Your task to perform on an android device: change the clock display to show seconds Image 0: 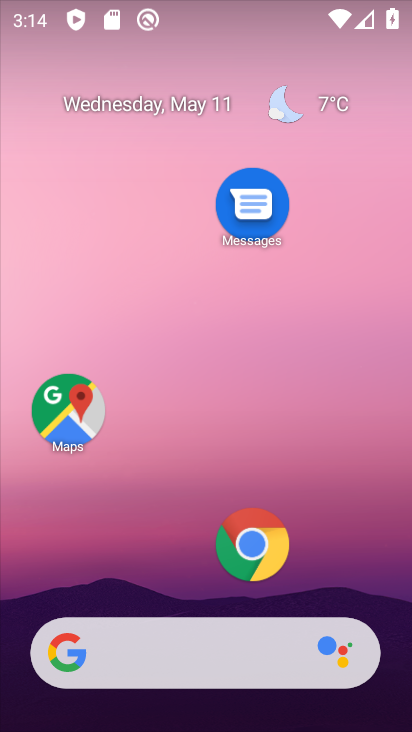
Step 0: drag from (171, 545) to (291, 46)
Your task to perform on an android device: change the clock display to show seconds Image 1: 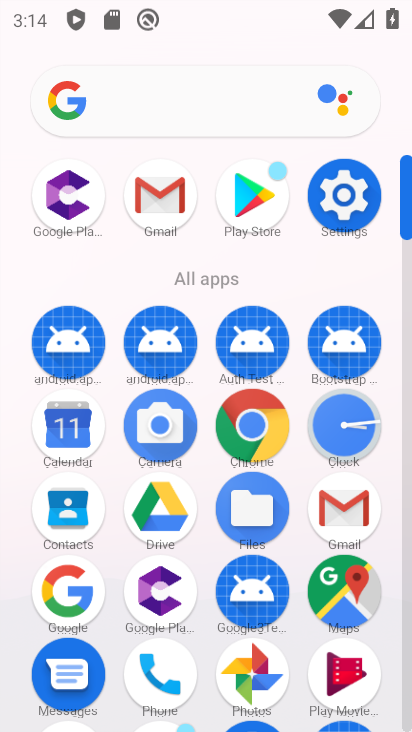
Step 1: click (348, 428)
Your task to perform on an android device: change the clock display to show seconds Image 2: 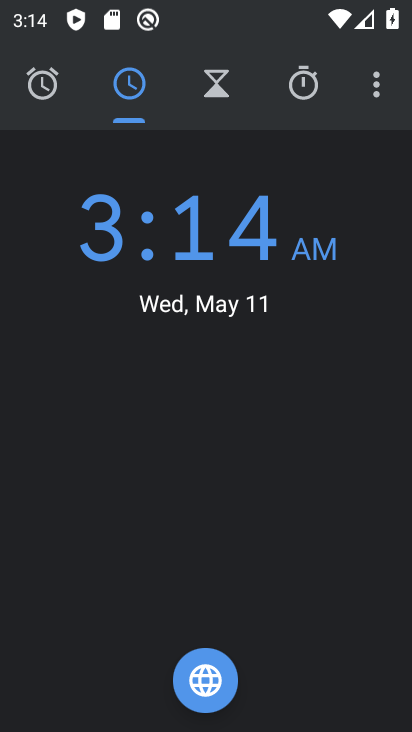
Step 2: click (373, 80)
Your task to perform on an android device: change the clock display to show seconds Image 3: 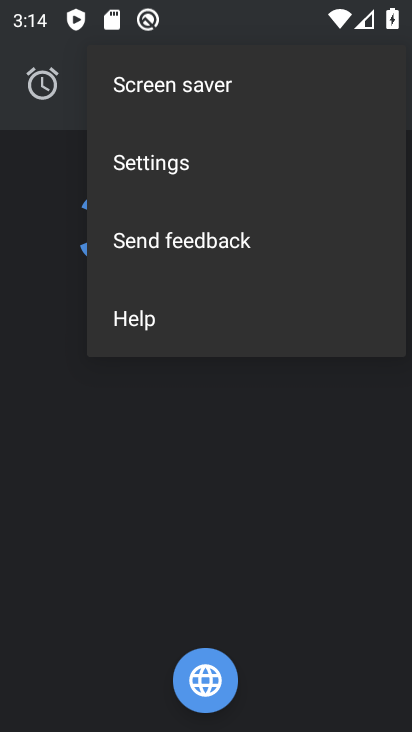
Step 3: click (150, 164)
Your task to perform on an android device: change the clock display to show seconds Image 4: 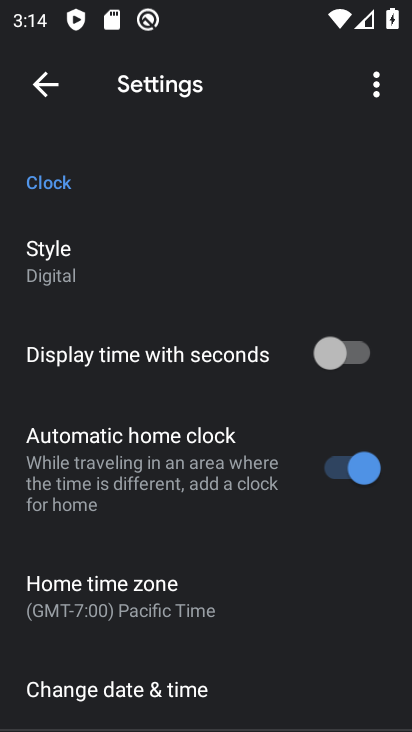
Step 4: click (355, 350)
Your task to perform on an android device: change the clock display to show seconds Image 5: 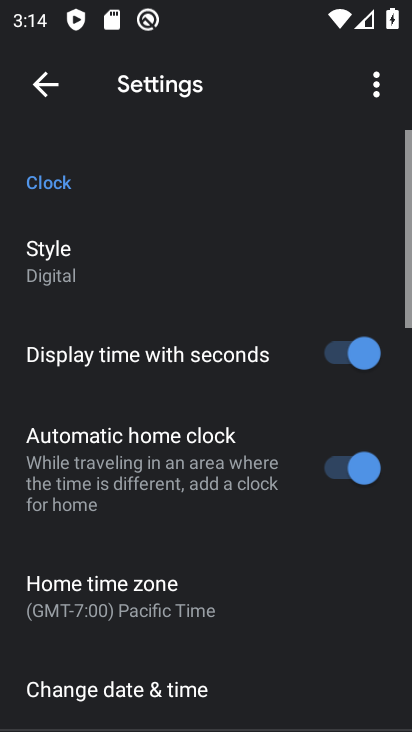
Step 5: task complete